Your task to perform on an android device: Do I have any events today? Image 0: 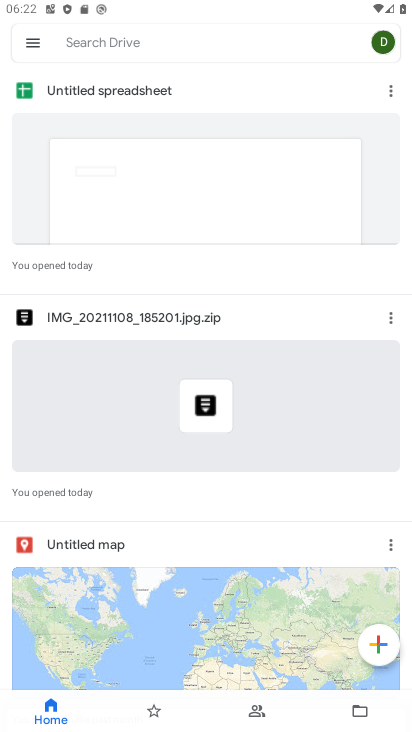
Step 0: press home button
Your task to perform on an android device: Do I have any events today? Image 1: 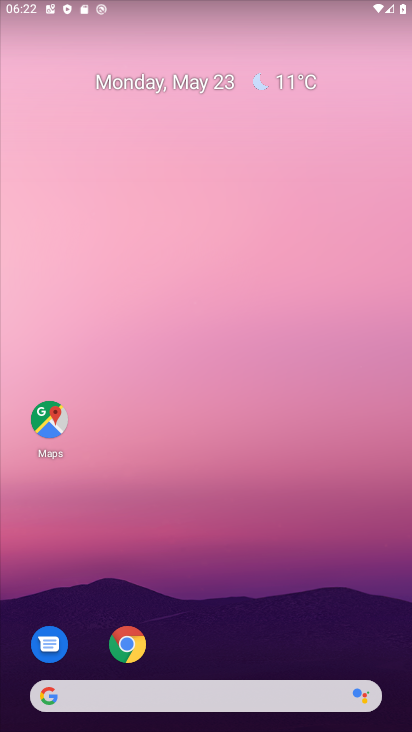
Step 1: drag from (216, 645) to (186, 85)
Your task to perform on an android device: Do I have any events today? Image 2: 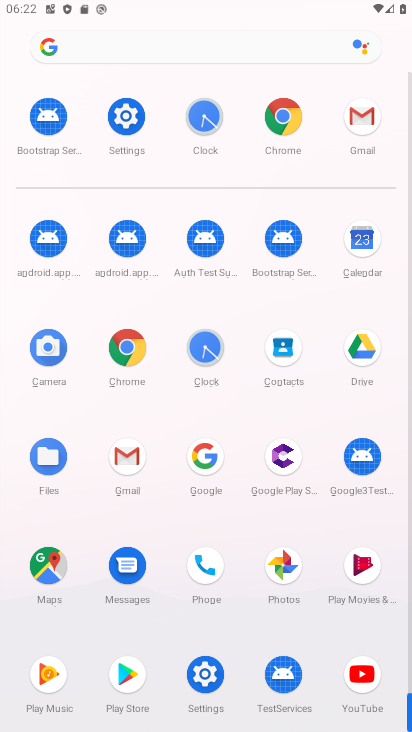
Step 2: click (358, 270)
Your task to perform on an android device: Do I have any events today? Image 3: 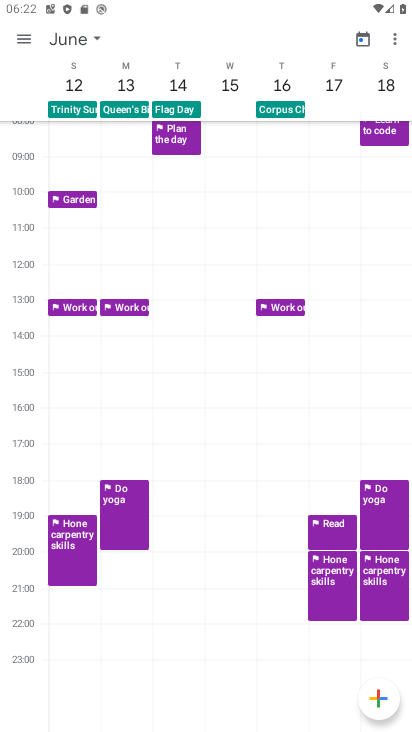
Step 3: click (71, 43)
Your task to perform on an android device: Do I have any events today? Image 4: 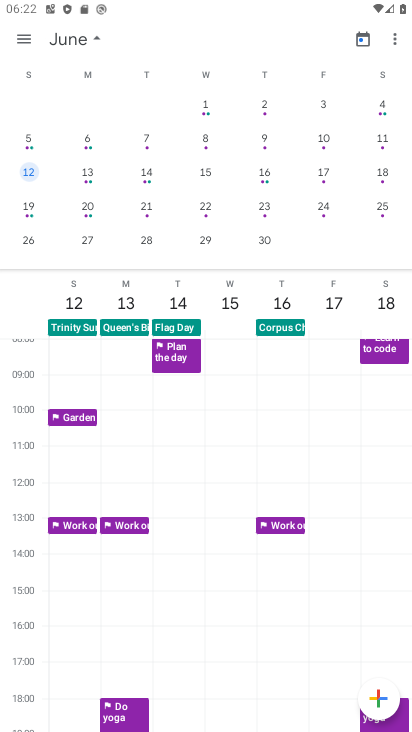
Step 4: drag from (76, 135) to (401, 184)
Your task to perform on an android device: Do I have any events today? Image 5: 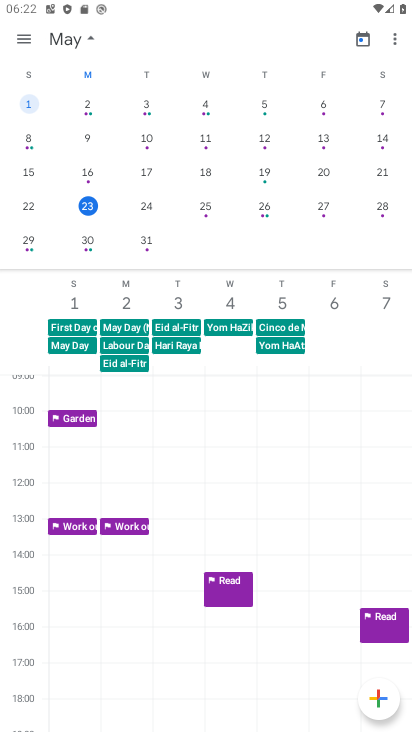
Step 5: click (24, 45)
Your task to perform on an android device: Do I have any events today? Image 6: 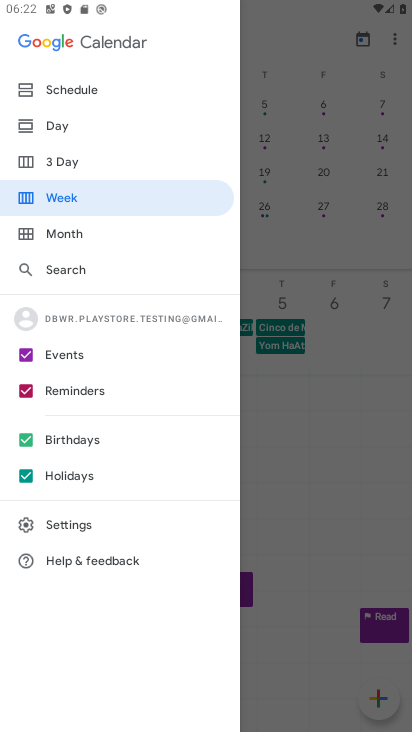
Step 6: click (68, 85)
Your task to perform on an android device: Do I have any events today? Image 7: 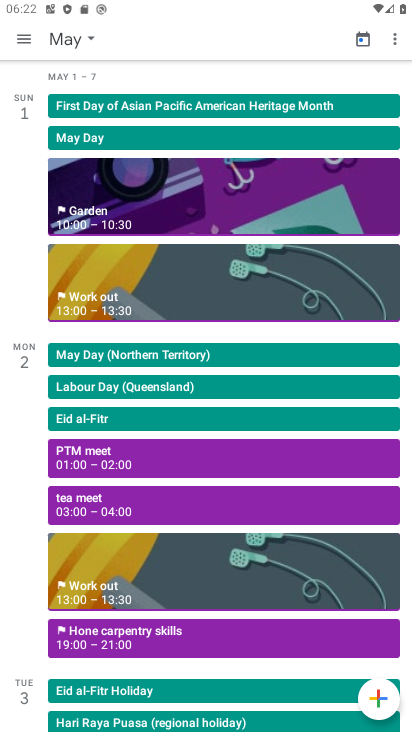
Step 7: click (70, 38)
Your task to perform on an android device: Do I have any events today? Image 8: 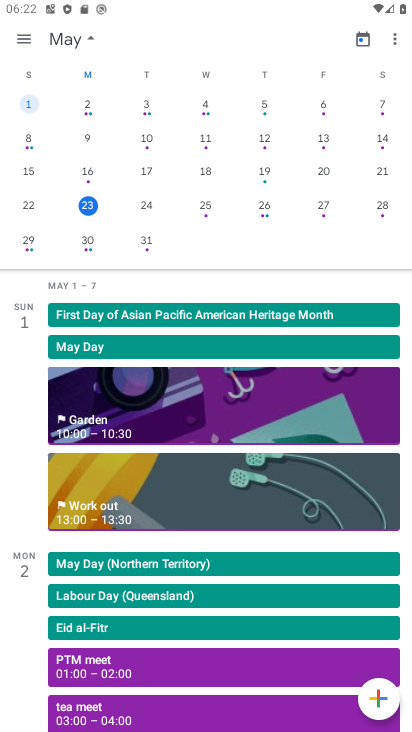
Step 8: click (89, 202)
Your task to perform on an android device: Do I have any events today? Image 9: 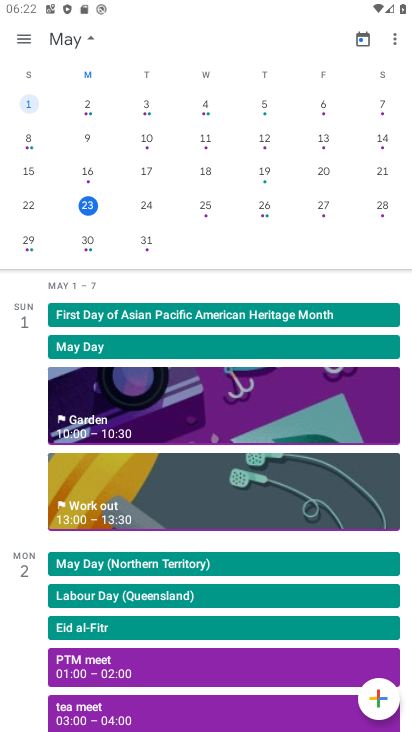
Step 9: click (88, 207)
Your task to perform on an android device: Do I have any events today? Image 10: 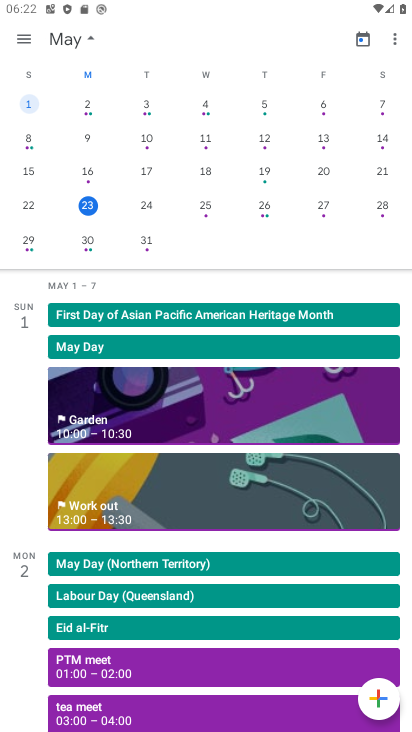
Step 10: click (88, 207)
Your task to perform on an android device: Do I have any events today? Image 11: 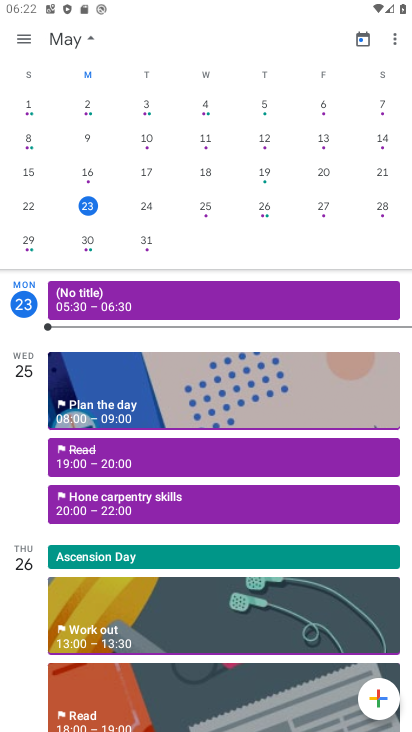
Step 11: task complete